Your task to perform on an android device: Search for pizza restaurants on Maps Image 0: 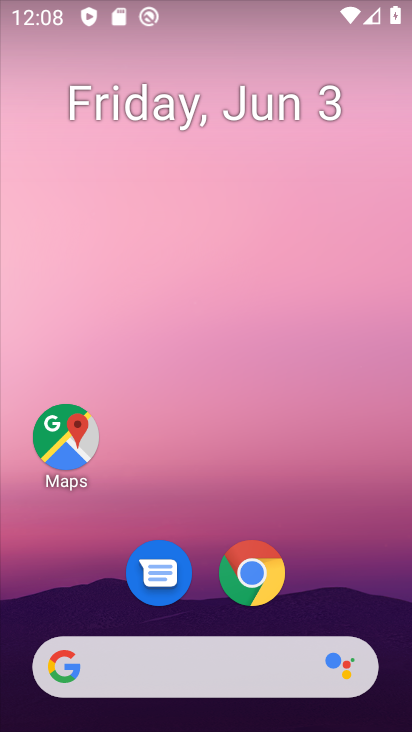
Step 0: task complete